Your task to perform on an android device: open app "PUBG MOBILE" Image 0: 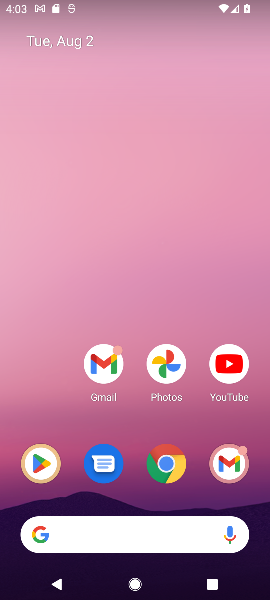
Step 0: press home button
Your task to perform on an android device: open app "PUBG MOBILE" Image 1: 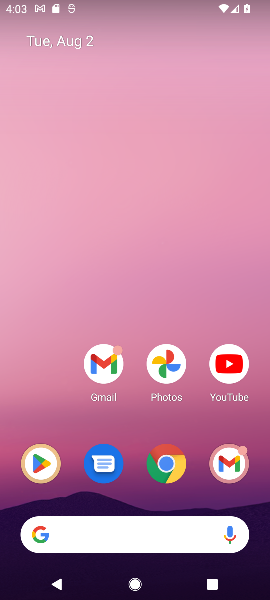
Step 1: click (38, 463)
Your task to perform on an android device: open app "PUBG MOBILE" Image 2: 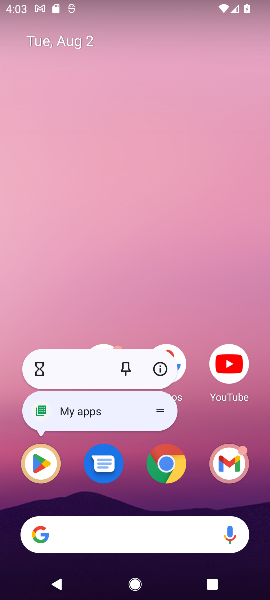
Step 2: click (38, 463)
Your task to perform on an android device: open app "PUBG MOBILE" Image 3: 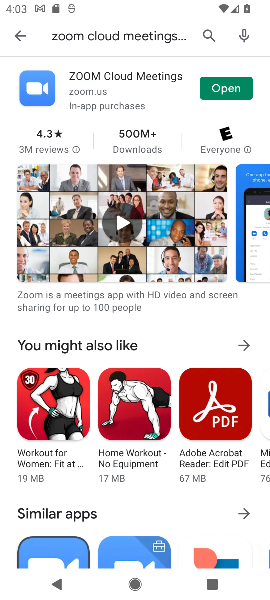
Step 3: click (213, 37)
Your task to perform on an android device: open app "PUBG MOBILE" Image 4: 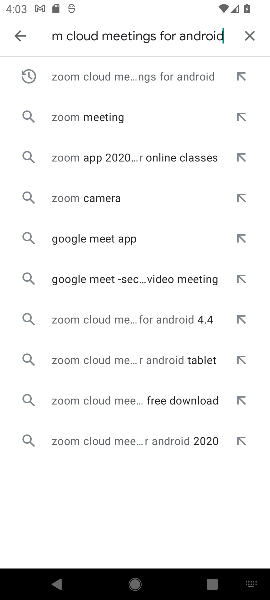
Step 4: click (249, 34)
Your task to perform on an android device: open app "PUBG MOBILE" Image 5: 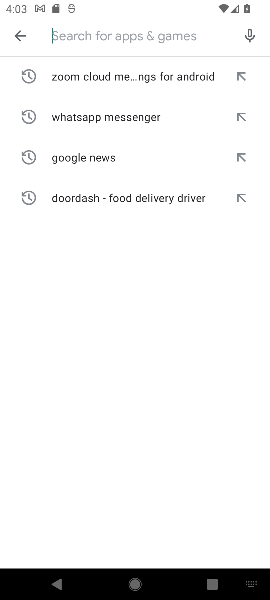
Step 5: type "PUBG MOBILE"
Your task to perform on an android device: open app "PUBG MOBILE" Image 6: 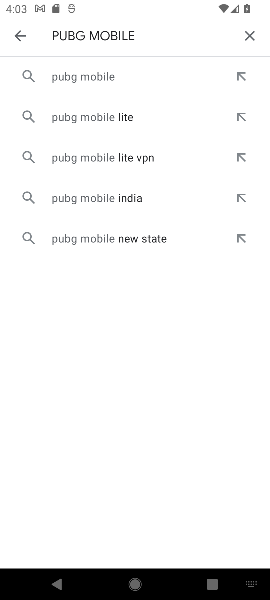
Step 6: click (94, 75)
Your task to perform on an android device: open app "PUBG MOBILE" Image 7: 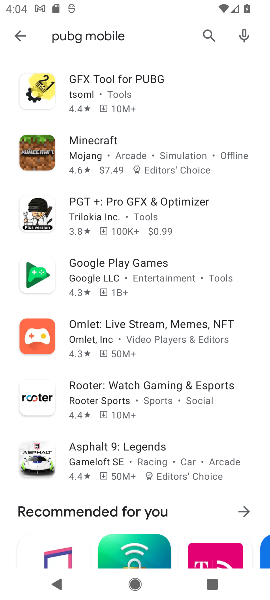
Step 7: task complete